Your task to perform on an android device: see tabs open on other devices in the chrome app Image 0: 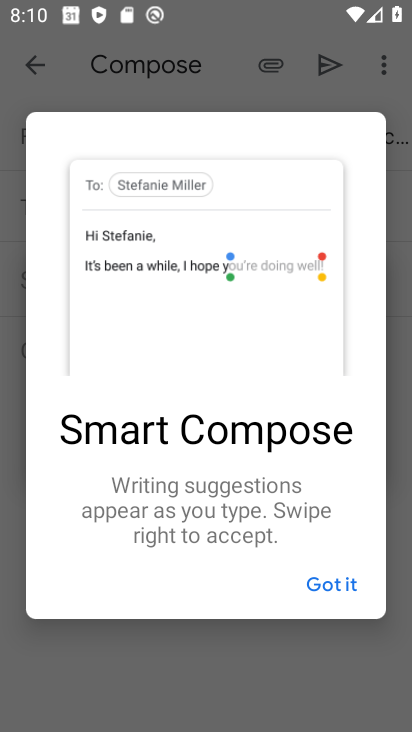
Step 0: press home button
Your task to perform on an android device: see tabs open on other devices in the chrome app Image 1: 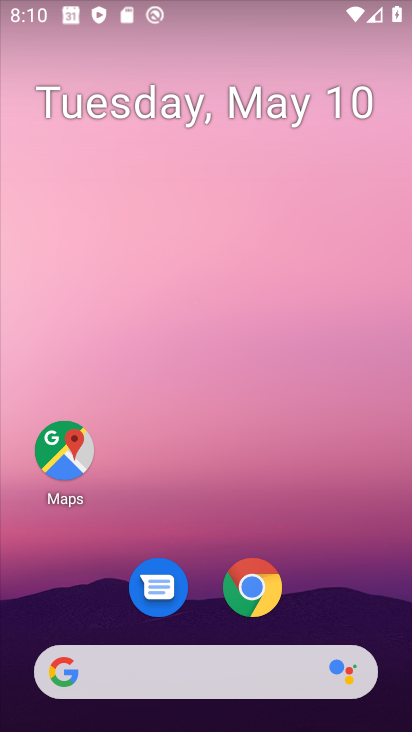
Step 1: click (262, 583)
Your task to perform on an android device: see tabs open on other devices in the chrome app Image 2: 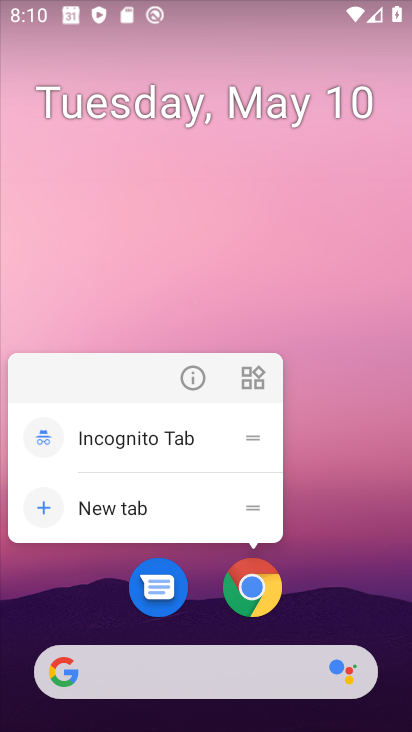
Step 2: click (261, 579)
Your task to perform on an android device: see tabs open on other devices in the chrome app Image 3: 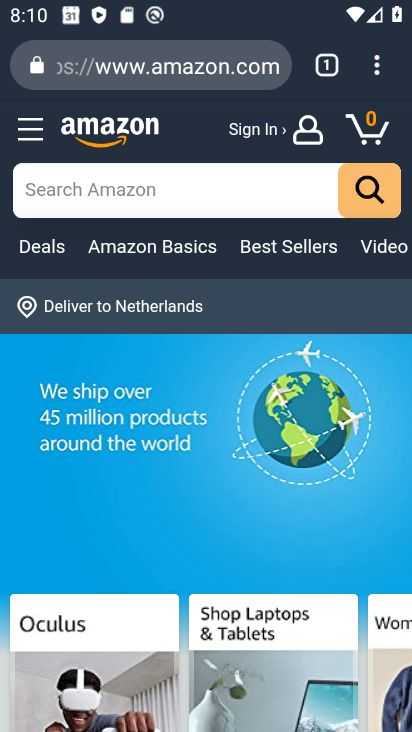
Step 3: drag from (376, 72) to (138, 312)
Your task to perform on an android device: see tabs open on other devices in the chrome app Image 4: 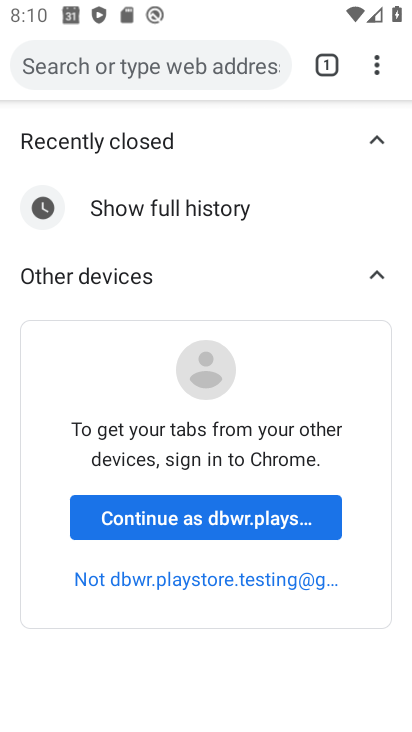
Step 4: click (211, 519)
Your task to perform on an android device: see tabs open on other devices in the chrome app Image 5: 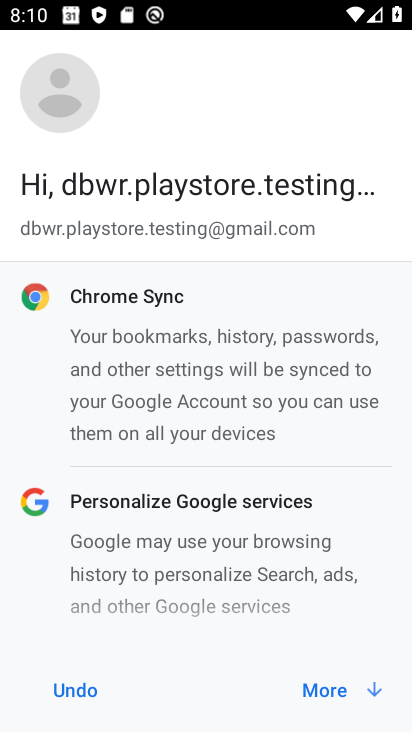
Step 5: click (345, 682)
Your task to perform on an android device: see tabs open on other devices in the chrome app Image 6: 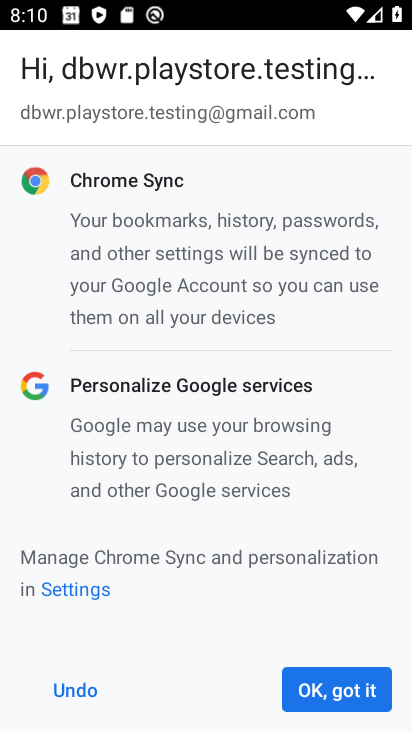
Step 6: click (345, 682)
Your task to perform on an android device: see tabs open on other devices in the chrome app Image 7: 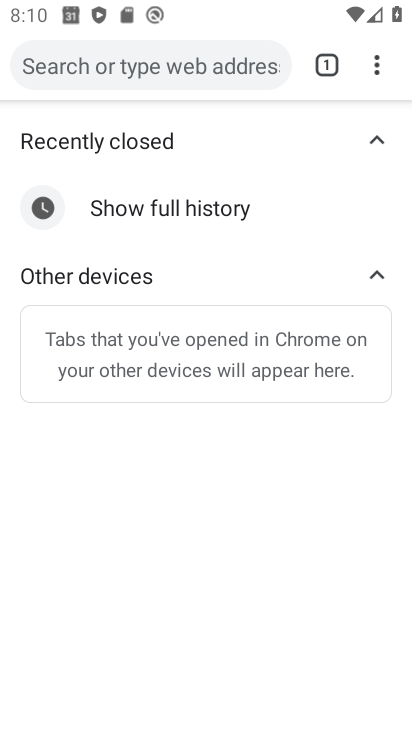
Step 7: task complete